Your task to perform on an android device: allow cookies in the chrome app Image 0: 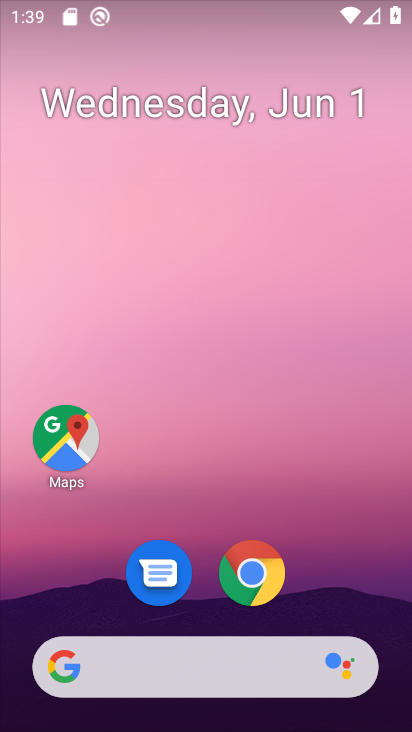
Step 0: drag from (363, 599) to (188, 12)
Your task to perform on an android device: allow cookies in the chrome app Image 1: 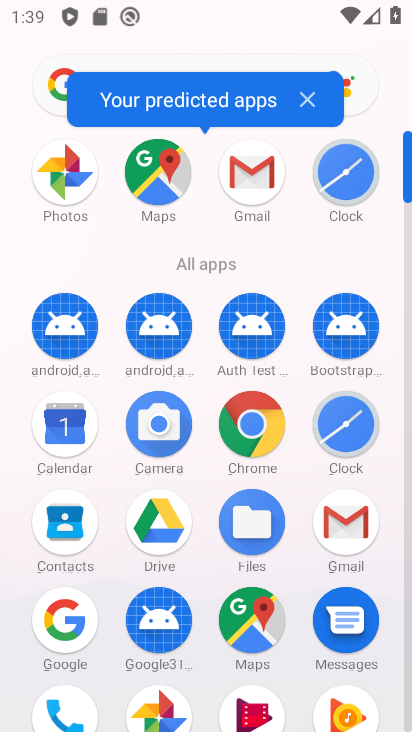
Step 1: click (257, 439)
Your task to perform on an android device: allow cookies in the chrome app Image 2: 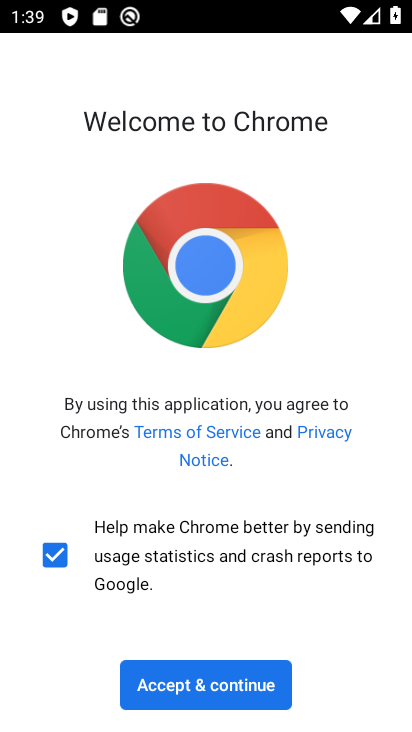
Step 2: click (237, 683)
Your task to perform on an android device: allow cookies in the chrome app Image 3: 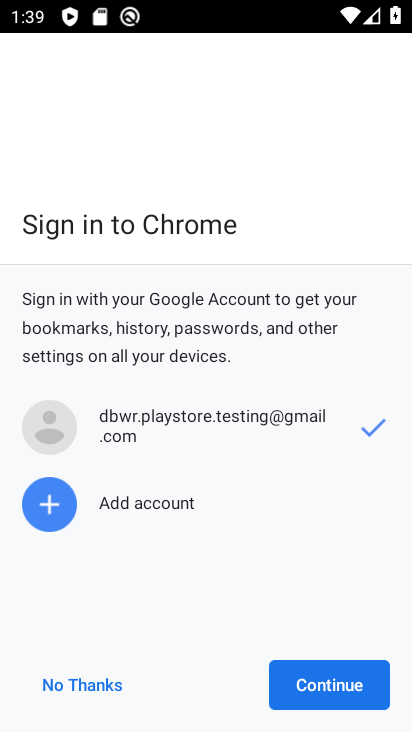
Step 3: click (97, 681)
Your task to perform on an android device: allow cookies in the chrome app Image 4: 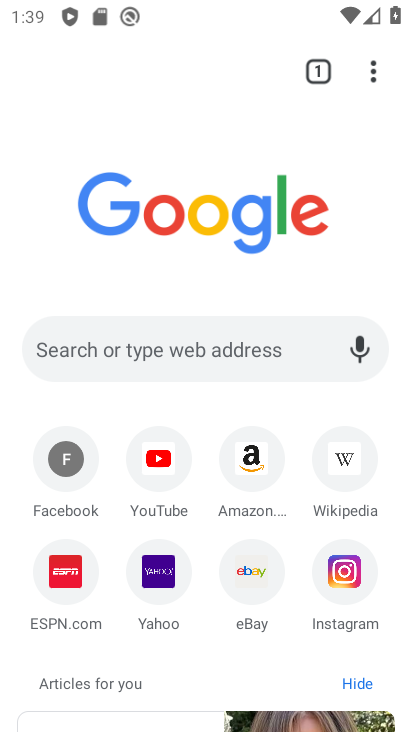
Step 4: drag from (374, 63) to (217, 598)
Your task to perform on an android device: allow cookies in the chrome app Image 5: 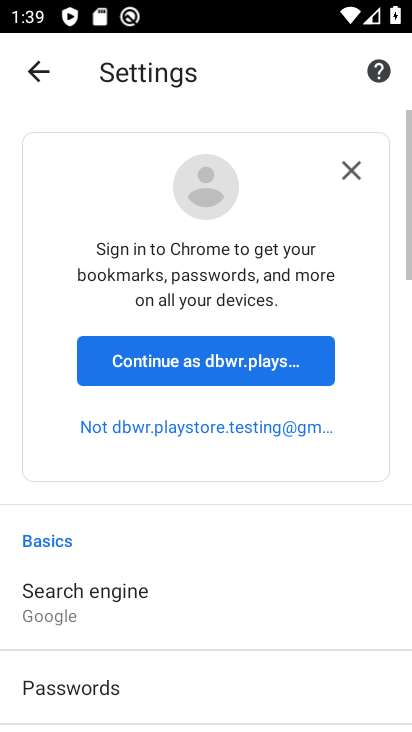
Step 5: drag from (190, 642) to (81, 211)
Your task to perform on an android device: allow cookies in the chrome app Image 6: 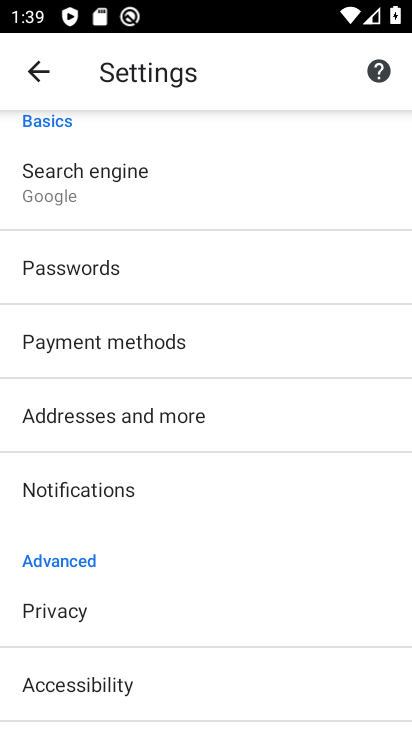
Step 6: drag from (174, 281) to (222, 605)
Your task to perform on an android device: allow cookies in the chrome app Image 7: 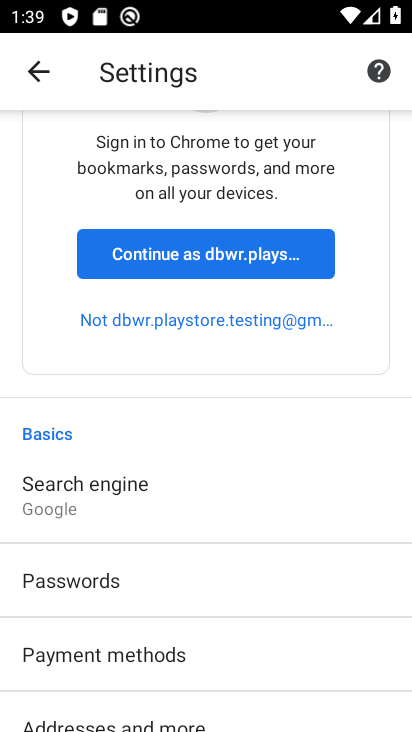
Step 7: drag from (221, 636) to (131, 172)
Your task to perform on an android device: allow cookies in the chrome app Image 8: 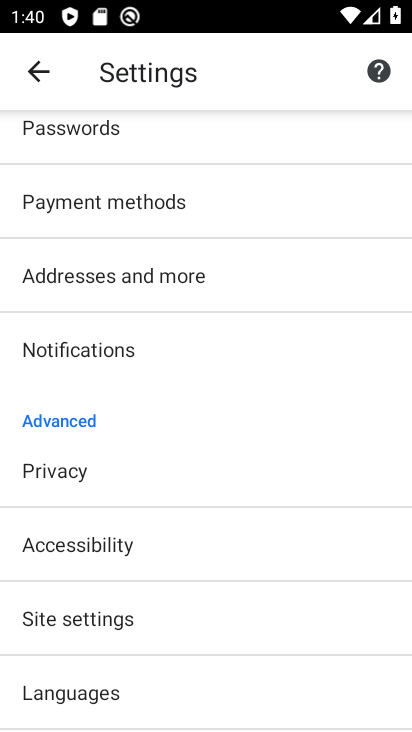
Step 8: click (132, 628)
Your task to perform on an android device: allow cookies in the chrome app Image 9: 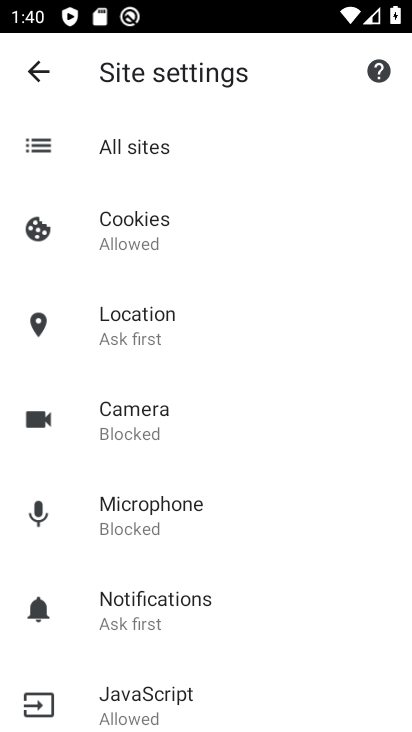
Step 9: click (113, 259)
Your task to perform on an android device: allow cookies in the chrome app Image 10: 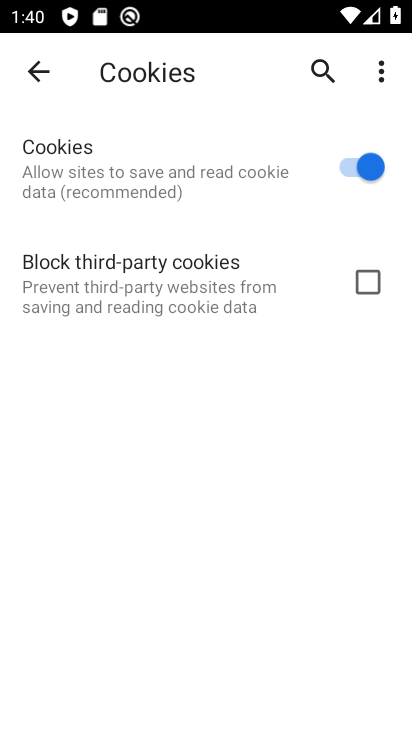
Step 10: task complete